Your task to perform on an android device: Add "razer kraken" to the cart on newegg, then select checkout. Image 0: 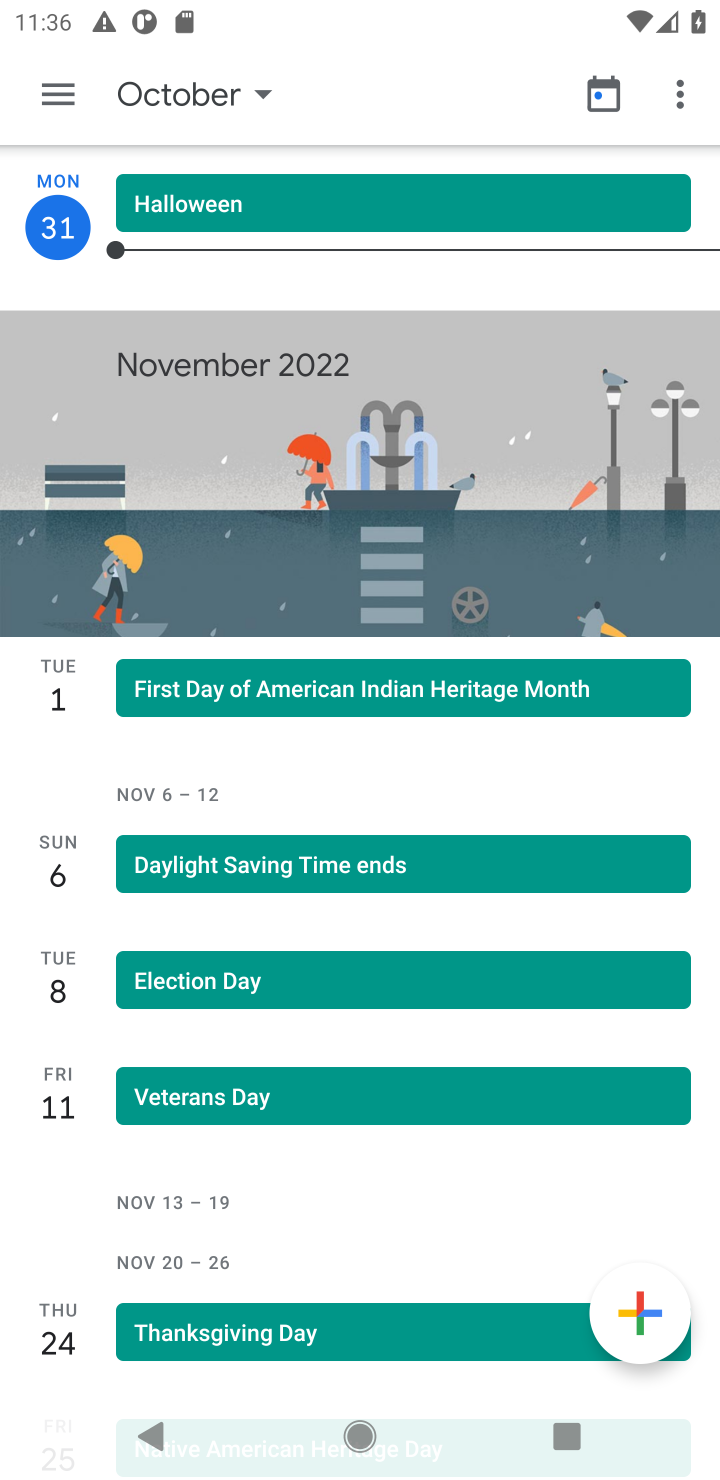
Step 0: press home button
Your task to perform on an android device: Add "razer kraken" to the cart on newegg, then select checkout. Image 1: 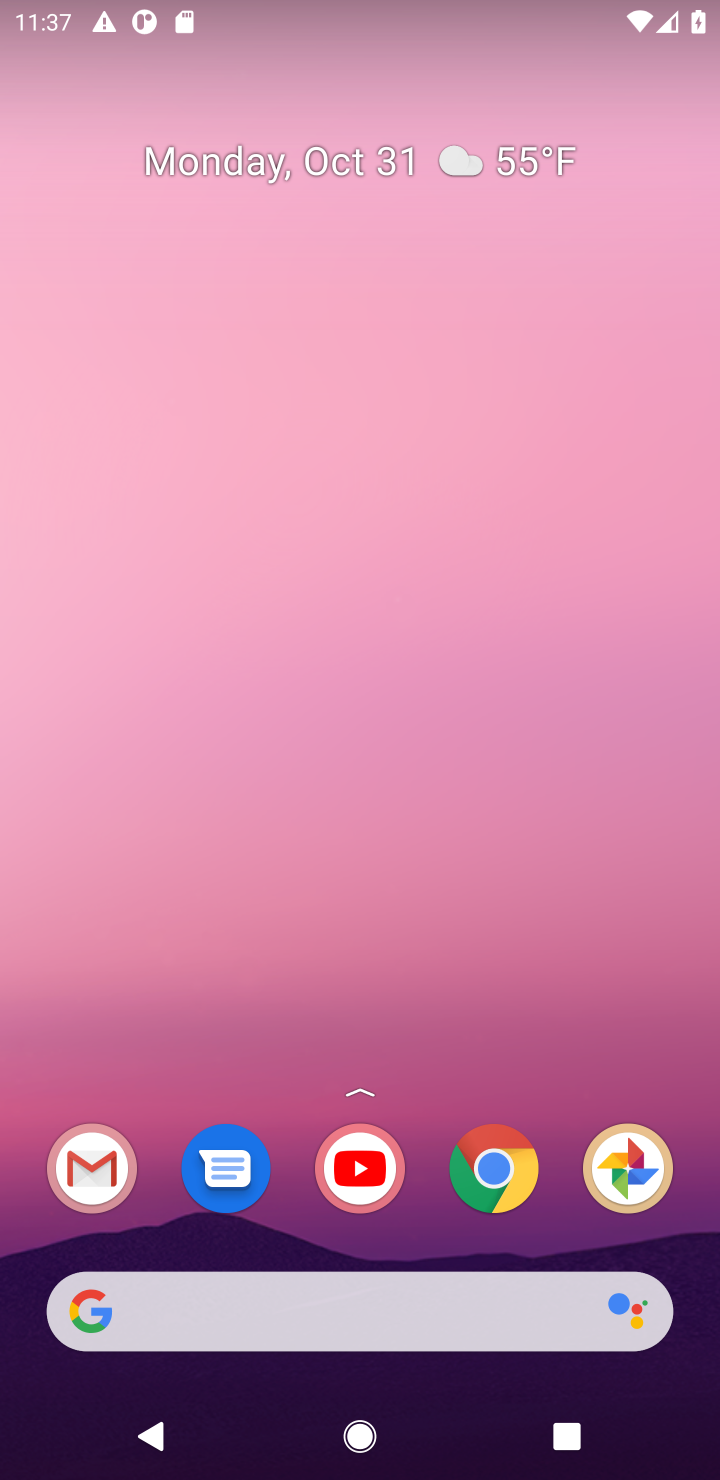
Step 1: click (464, 1172)
Your task to perform on an android device: Add "razer kraken" to the cart on newegg, then select checkout. Image 2: 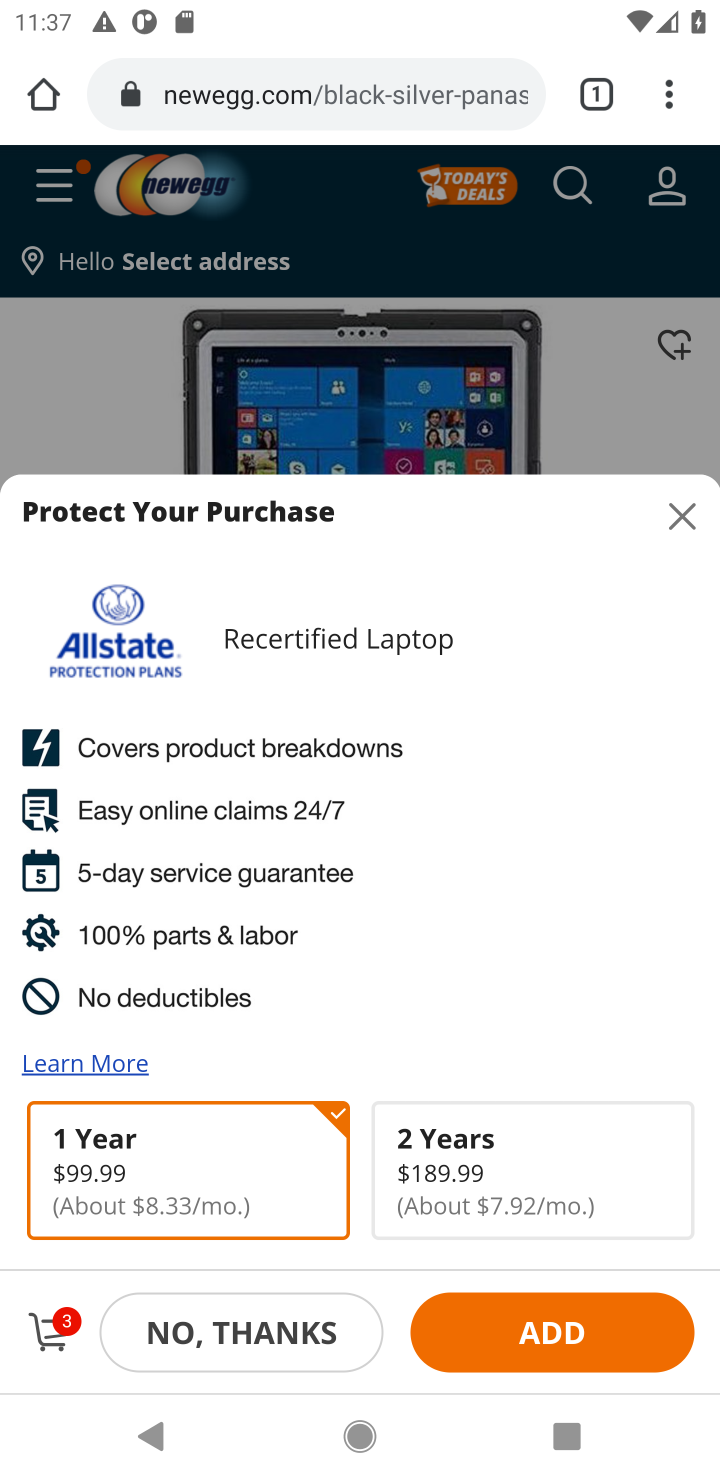
Step 2: click (313, 96)
Your task to perform on an android device: Add "razer kraken" to the cart on newegg, then select checkout. Image 3: 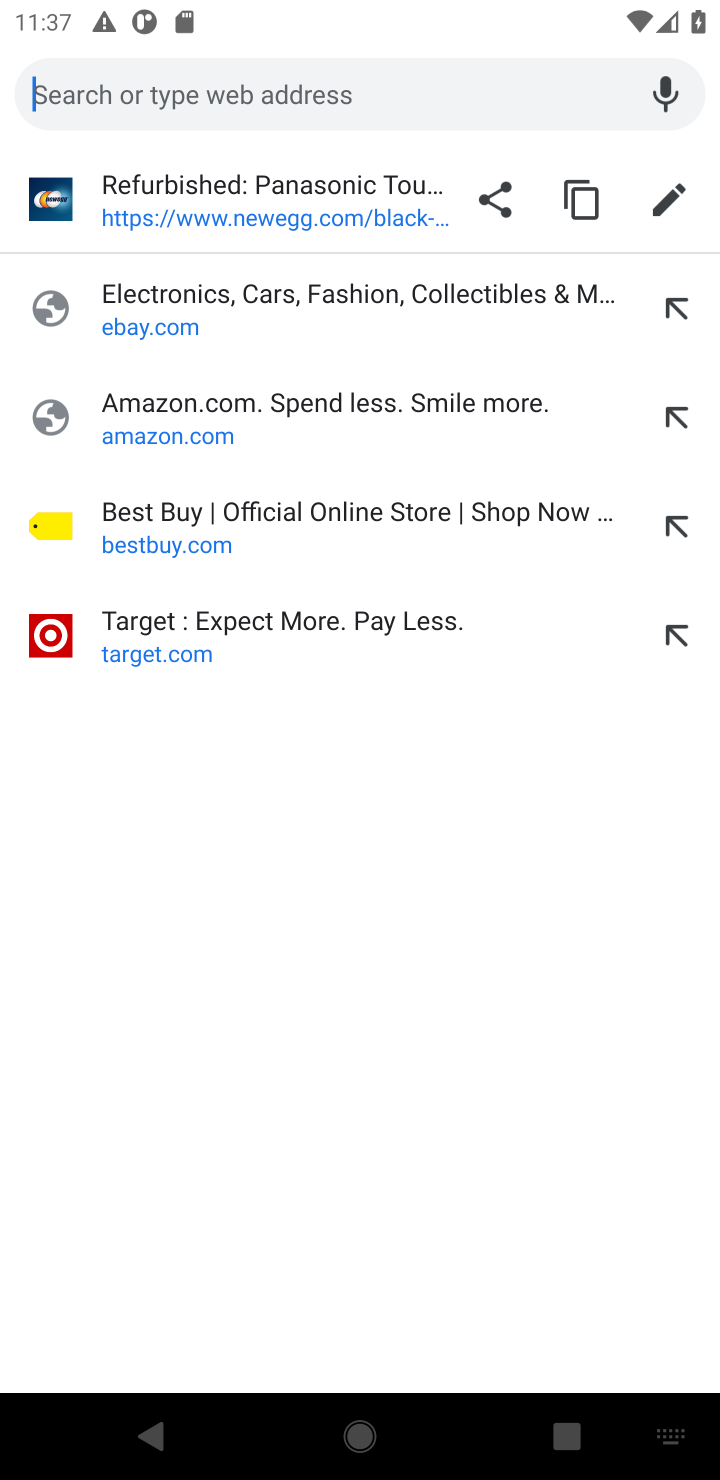
Step 3: type "newegg"
Your task to perform on an android device: Add "razer kraken" to the cart on newegg, then select checkout. Image 4: 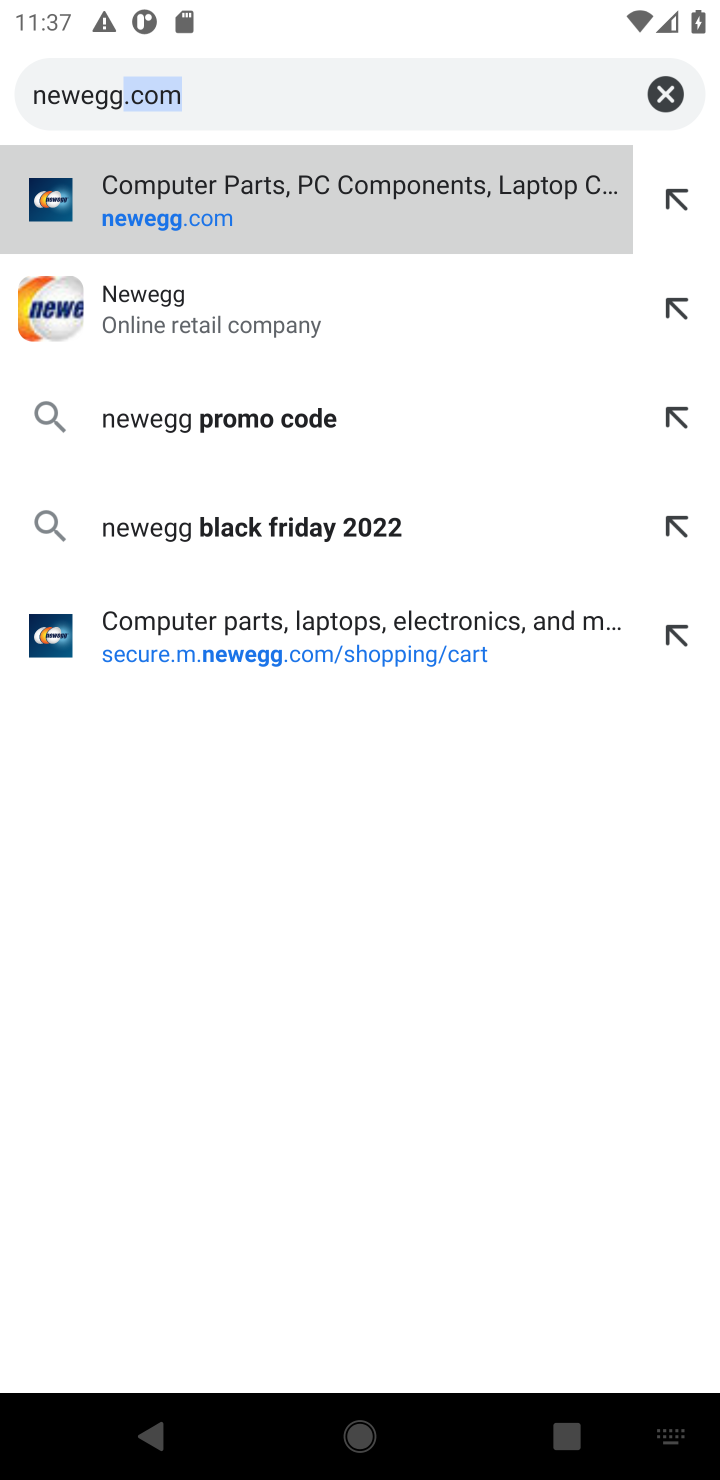
Step 4: press enter
Your task to perform on an android device: Add "razer kraken" to the cart on newegg, then select checkout. Image 5: 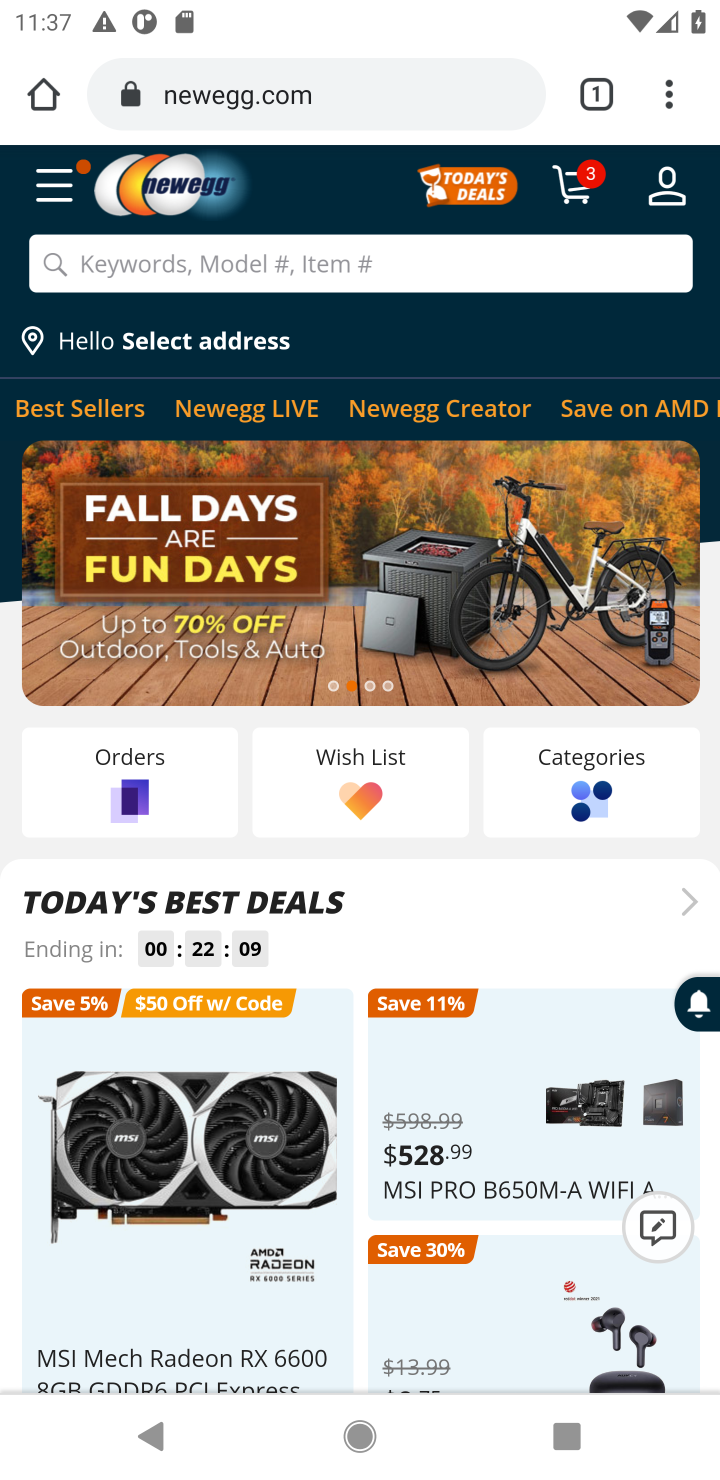
Step 5: click (429, 263)
Your task to perform on an android device: Add "razer kraken" to the cart on newegg, then select checkout. Image 6: 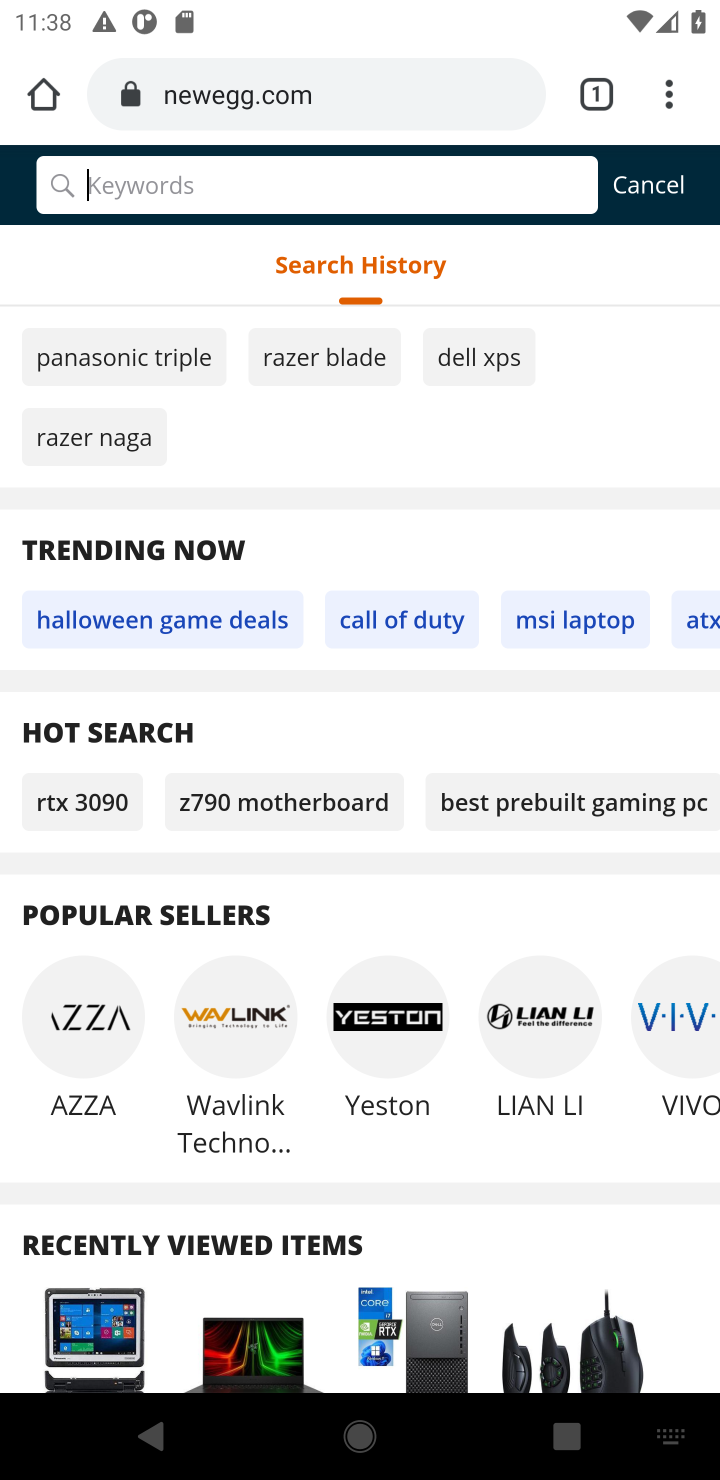
Step 6: type "razer kraken"
Your task to perform on an android device: Add "razer kraken" to the cart on newegg, then select checkout. Image 7: 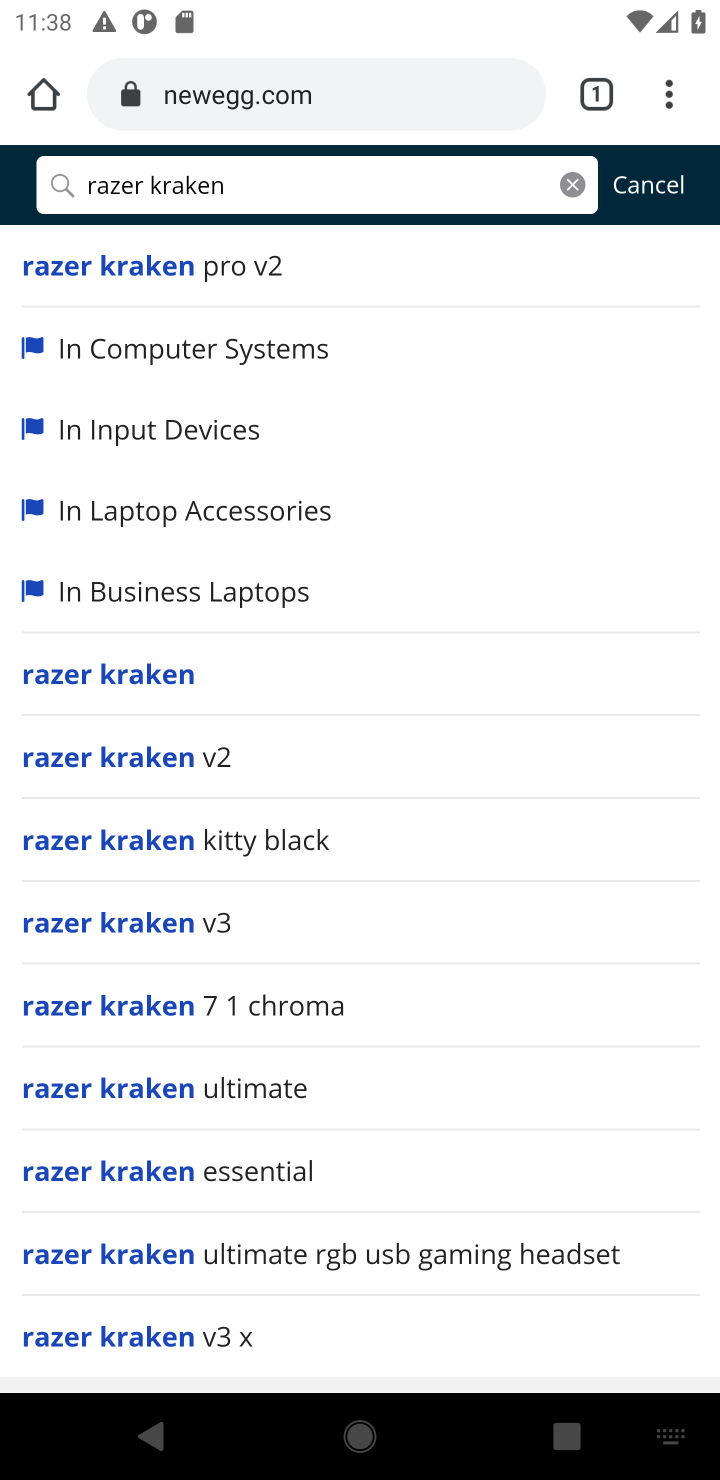
Step 7: press enter
Your task to perform on an android device: Add "razer kraken" to the cart on newegg, then select checkout. Image 8: 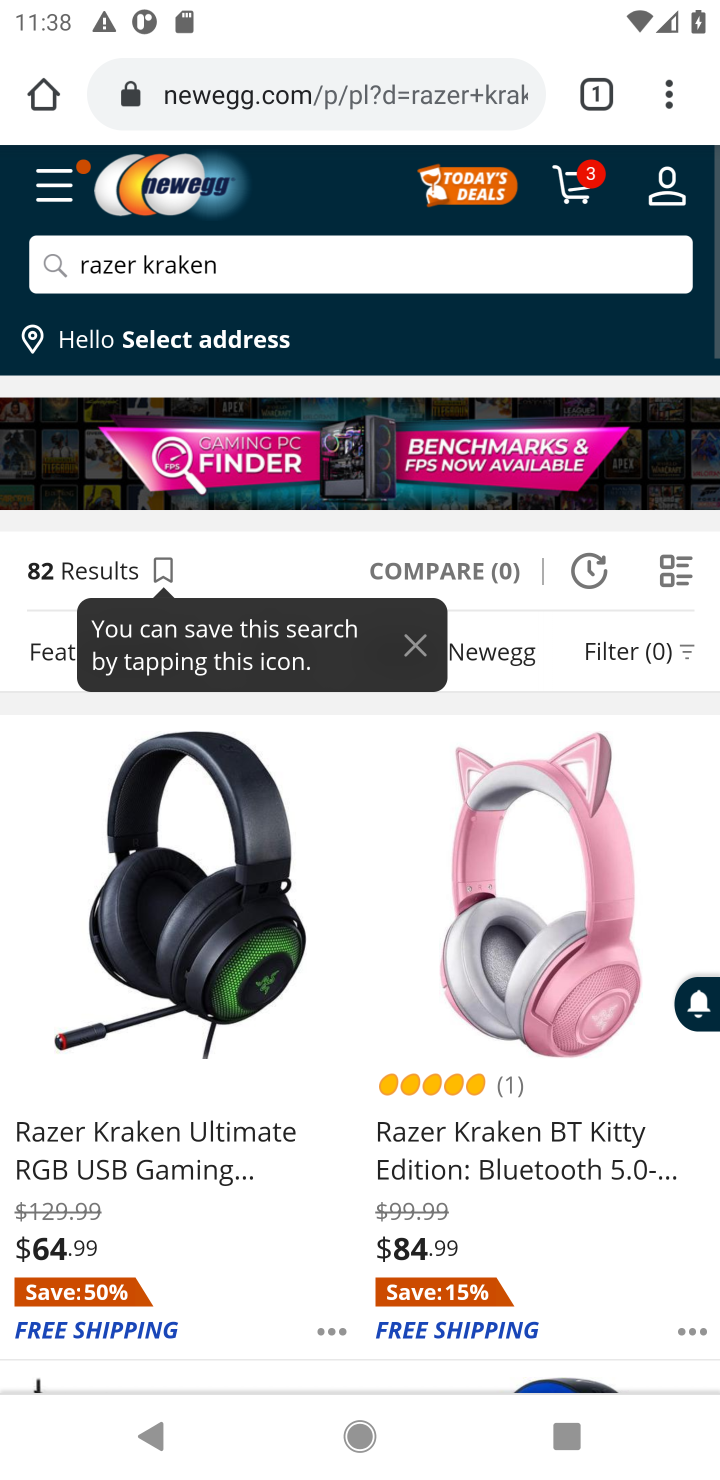
Step 8: click (217, 1013)
Your task to perform on an android device: Add "razer kraken" to the cart on newegg, then select checkout. Image 9: 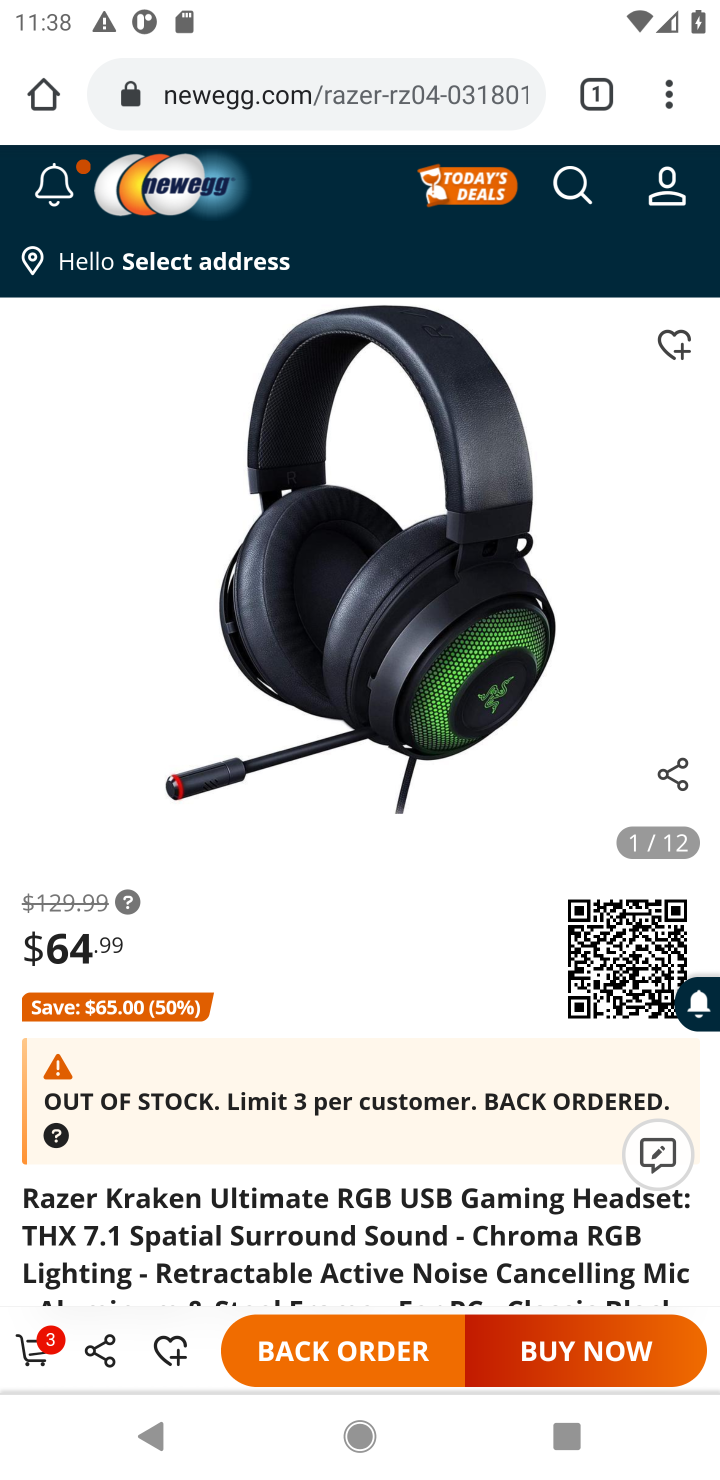
Step 9: drag from (356, 1026) to (408, 423)
Your task to perform on an android device: Add "razer kraken" to the cart on newegg, then select checkout. Image 10: 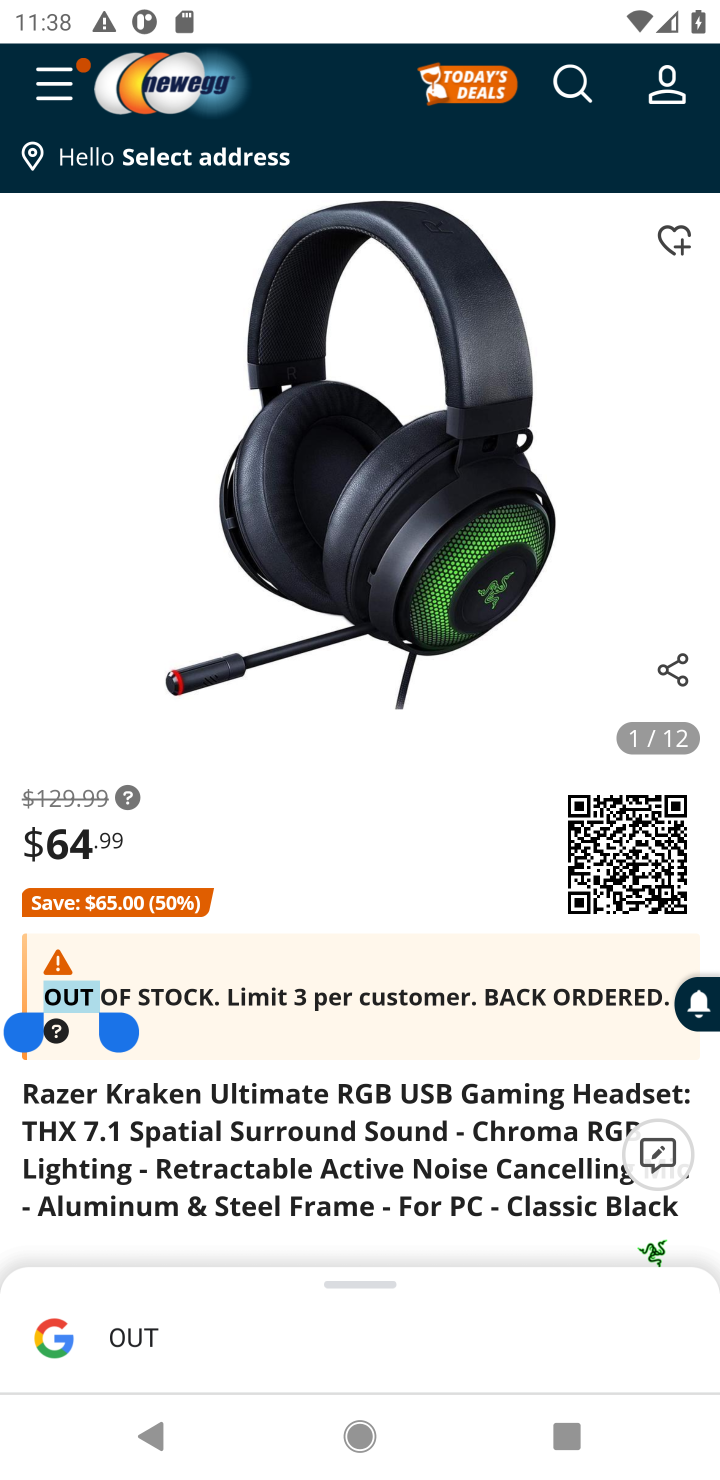
Step 10: drag from (403, 1165) to (433, 776)
Your task to perform on an android device: Add "razer kraken" to the cart on newegg, then select checkout. Image 11: 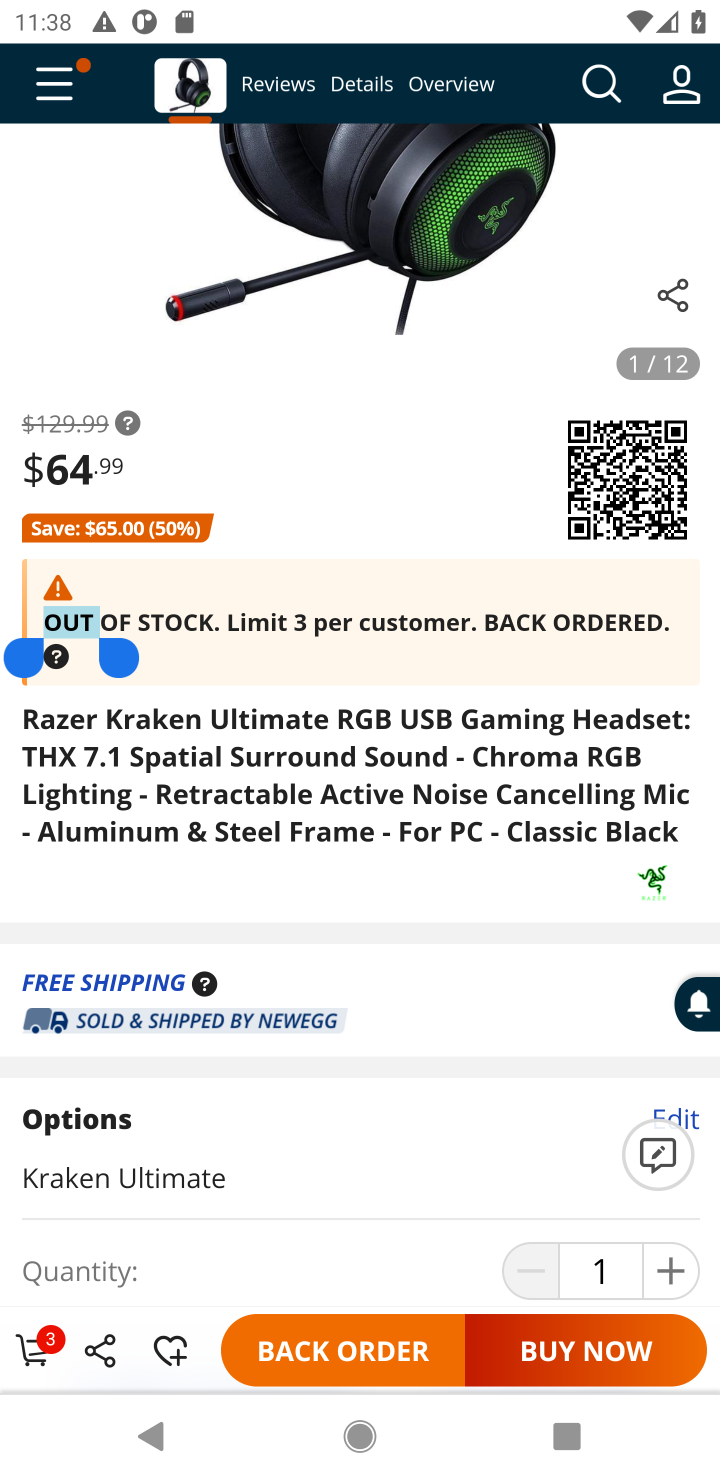
Step 11: drag from (497, 945) to (452, 410)
Your task to perform on an android device: Add "razer kraken" to the cart on newegg, then select checkout. Image 12: 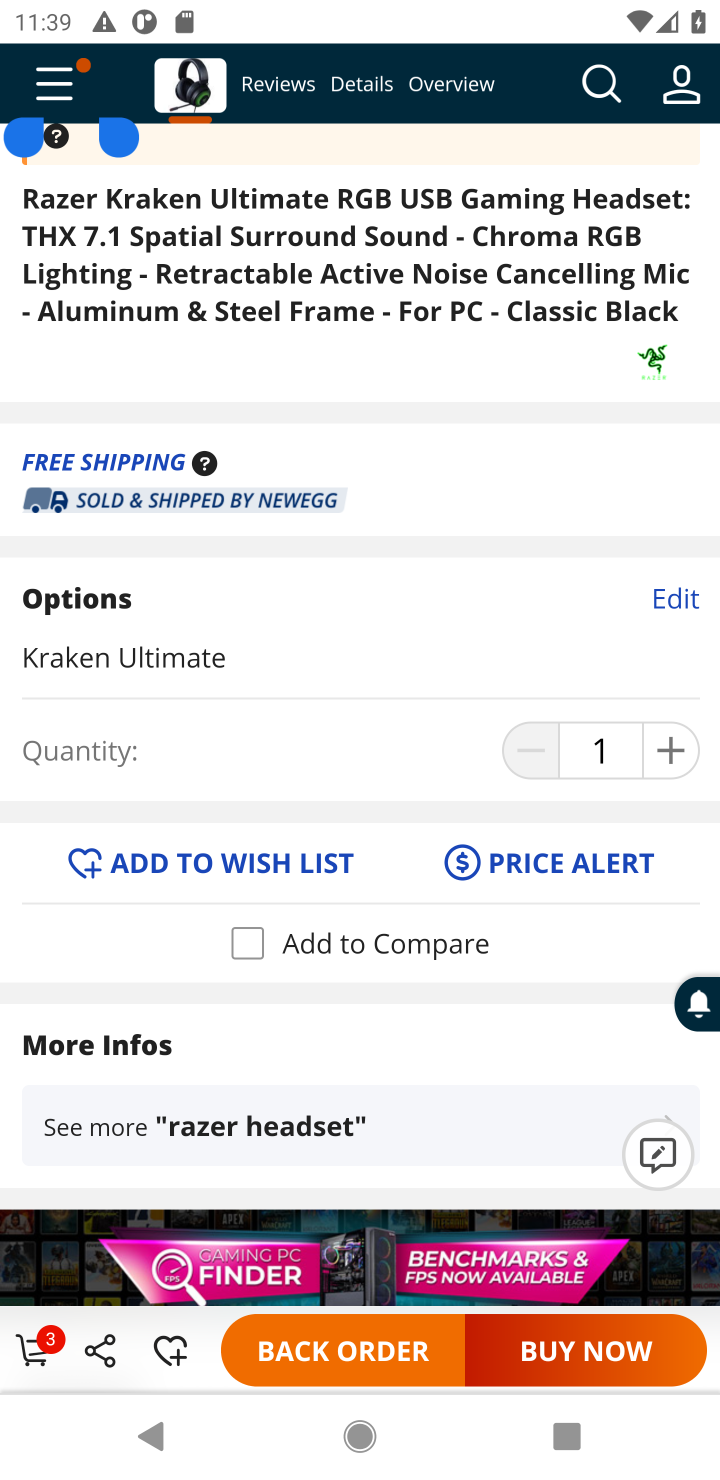
Step 12: drag from (407, 765) to (461, 1348)
Your task to perform on an android device: Add "razer kraken" to the cart on newegg, then select checkout. Image 13: 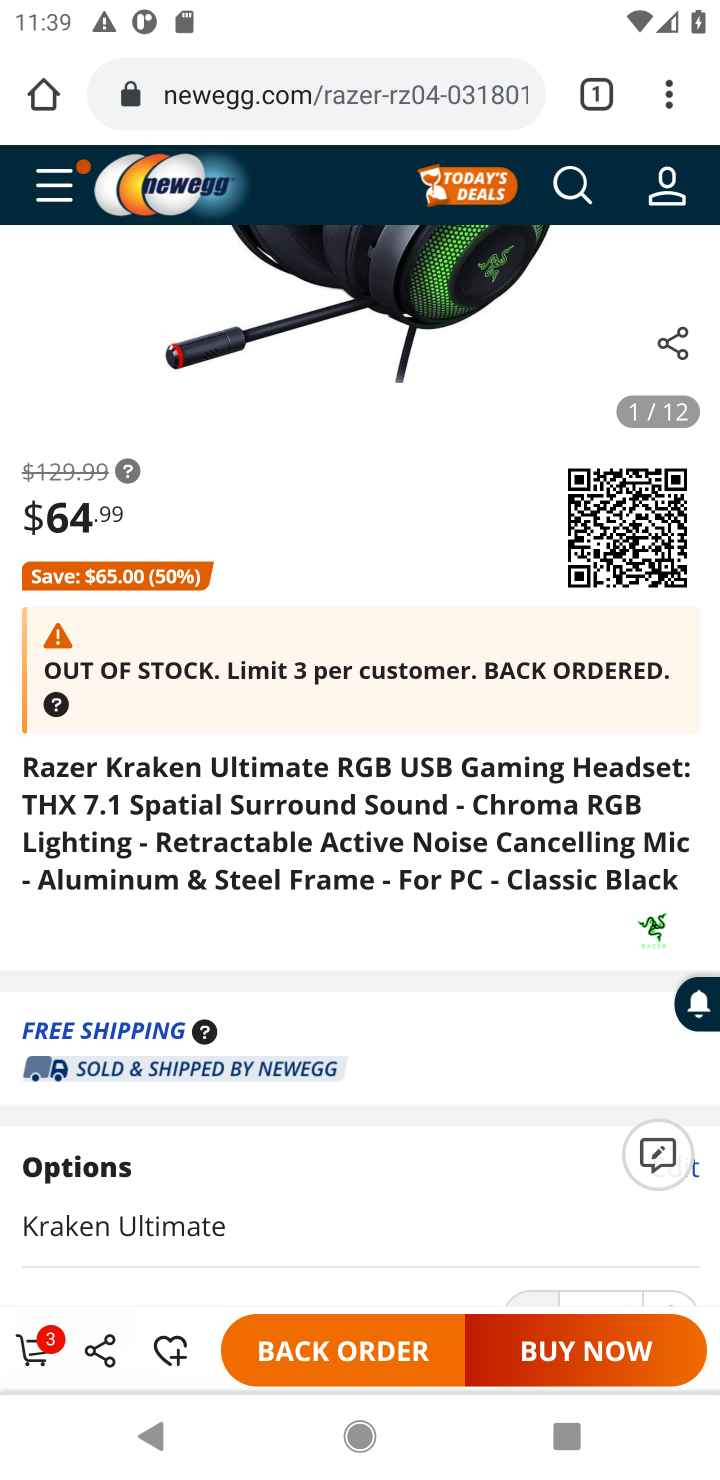
Step 13: press back button
Your task to perform on an android device: Add "razer kraken" to the cart on newegg, then select checkout. Image 14: 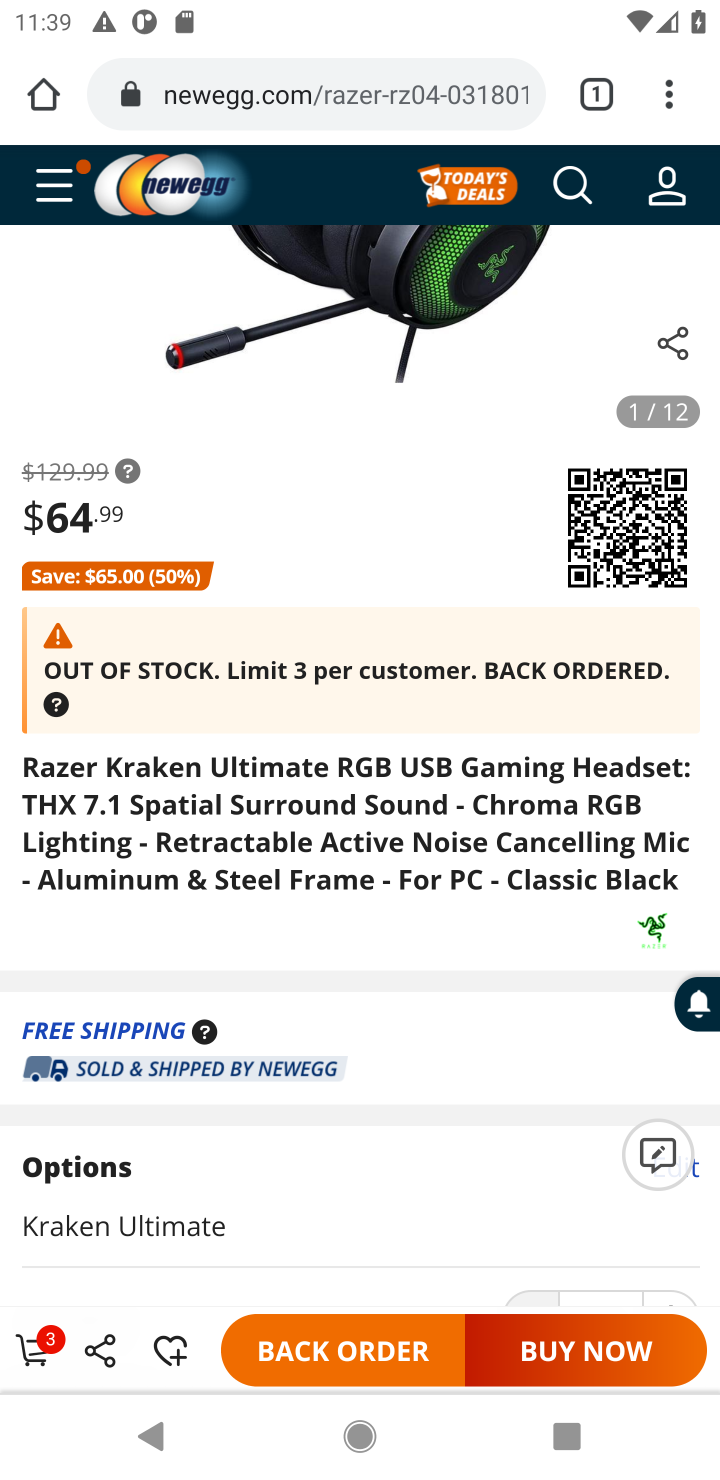
Step 14: press back button
Your task to perform on an android device: Add "razer kraken" to the cart on newegg, then select checkout. Image 15: 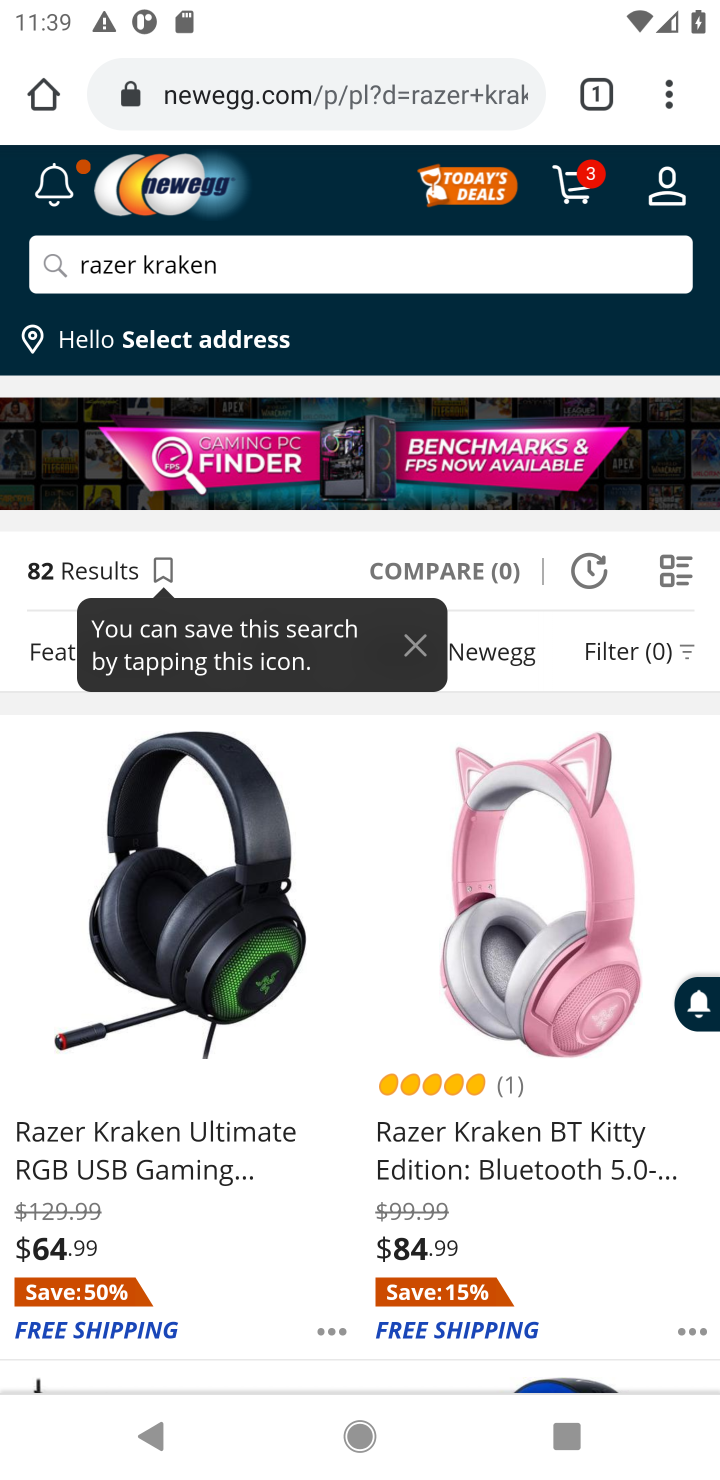
Step 15: drag from (355, 979) to (387, 478)
Your task to perform on an android device: Add "razer kraken" to the cart on newegg, then select checkout. Image 16: 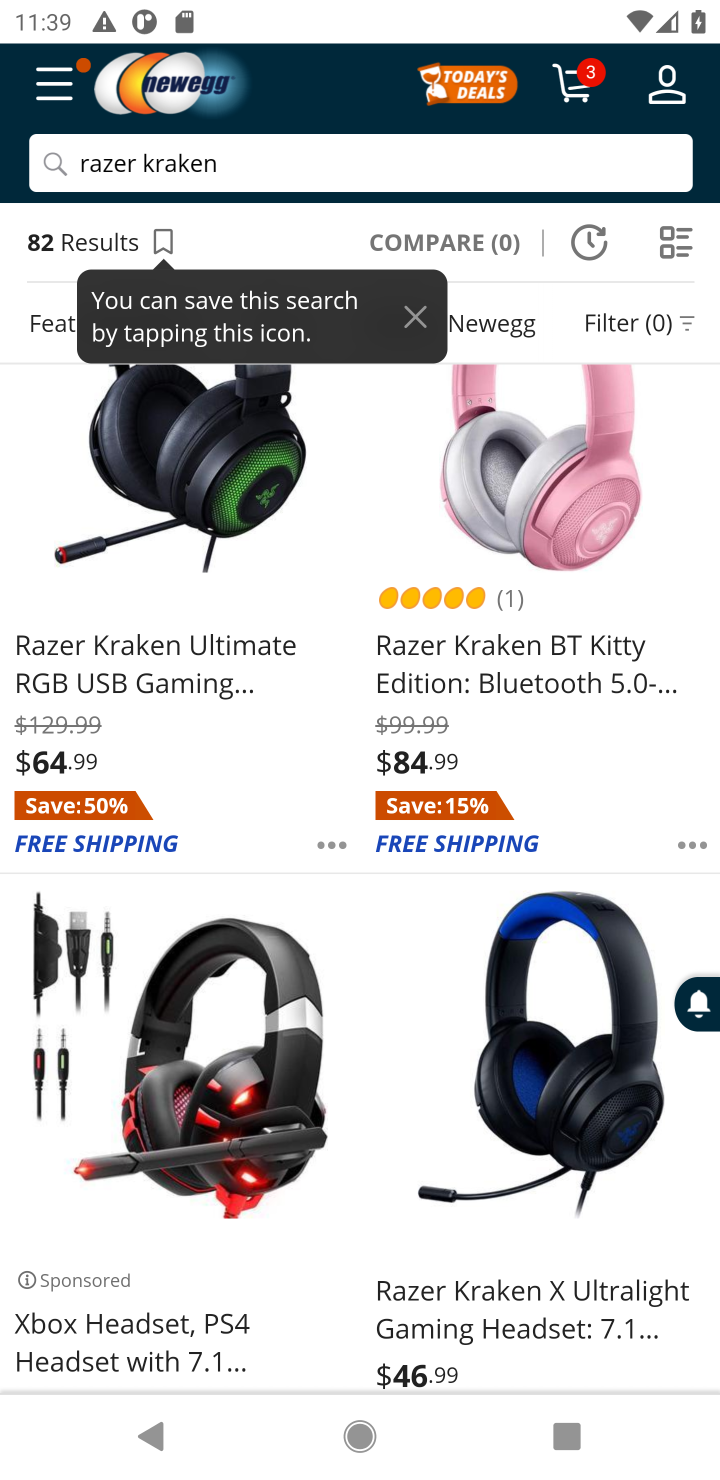
Step 16: drag from (353, 1046) to (365, 850)
Your task to perform on an android device: Add "razer kraken" to the cart on newegg, then select checkout. Image 17: 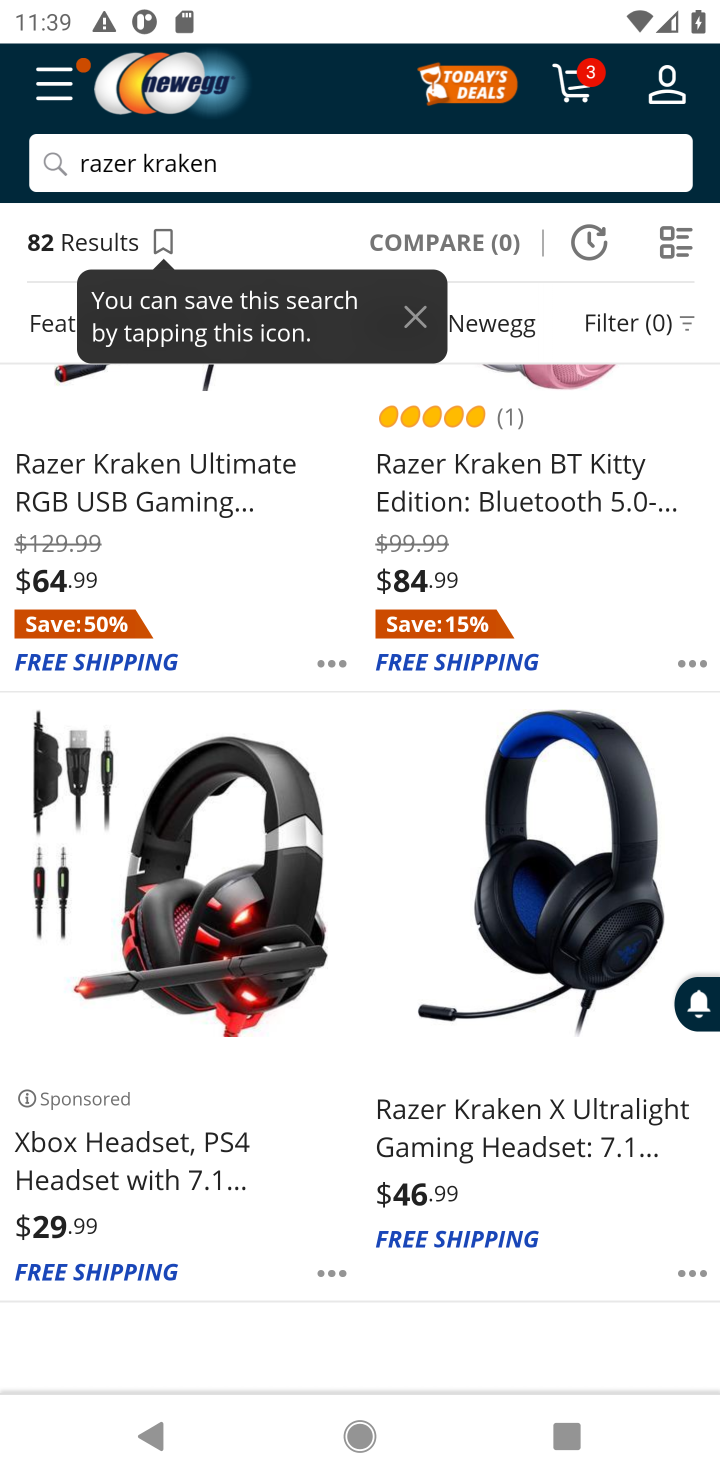
Step 17: click (477, 998)
Your task to perform on an android device: Add "razer kraken" to the cart on newegg, then select checkout. Image 18: 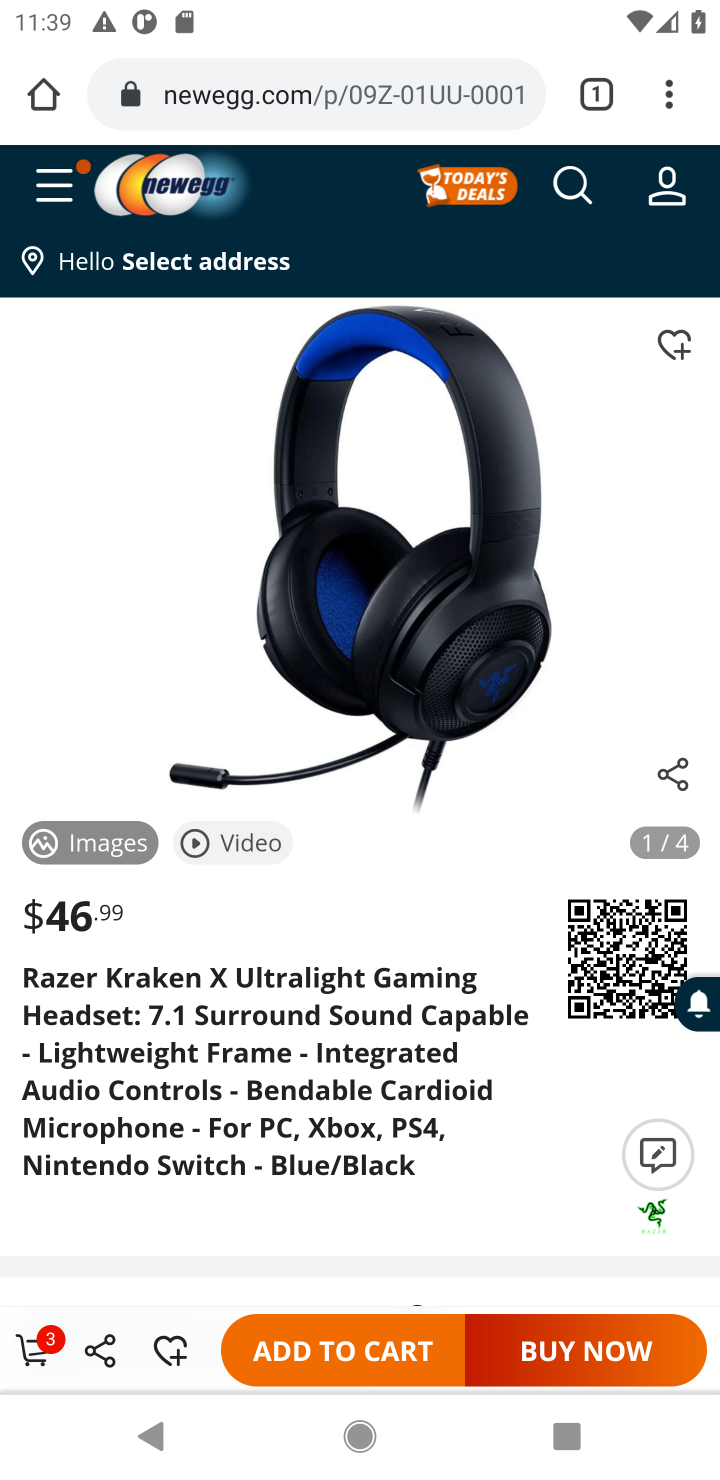
Step 18: click (319, 1344)
Your task to perform on an android device: Add "razer kraken" to the cart on newegg, then select checkout. Image 19: 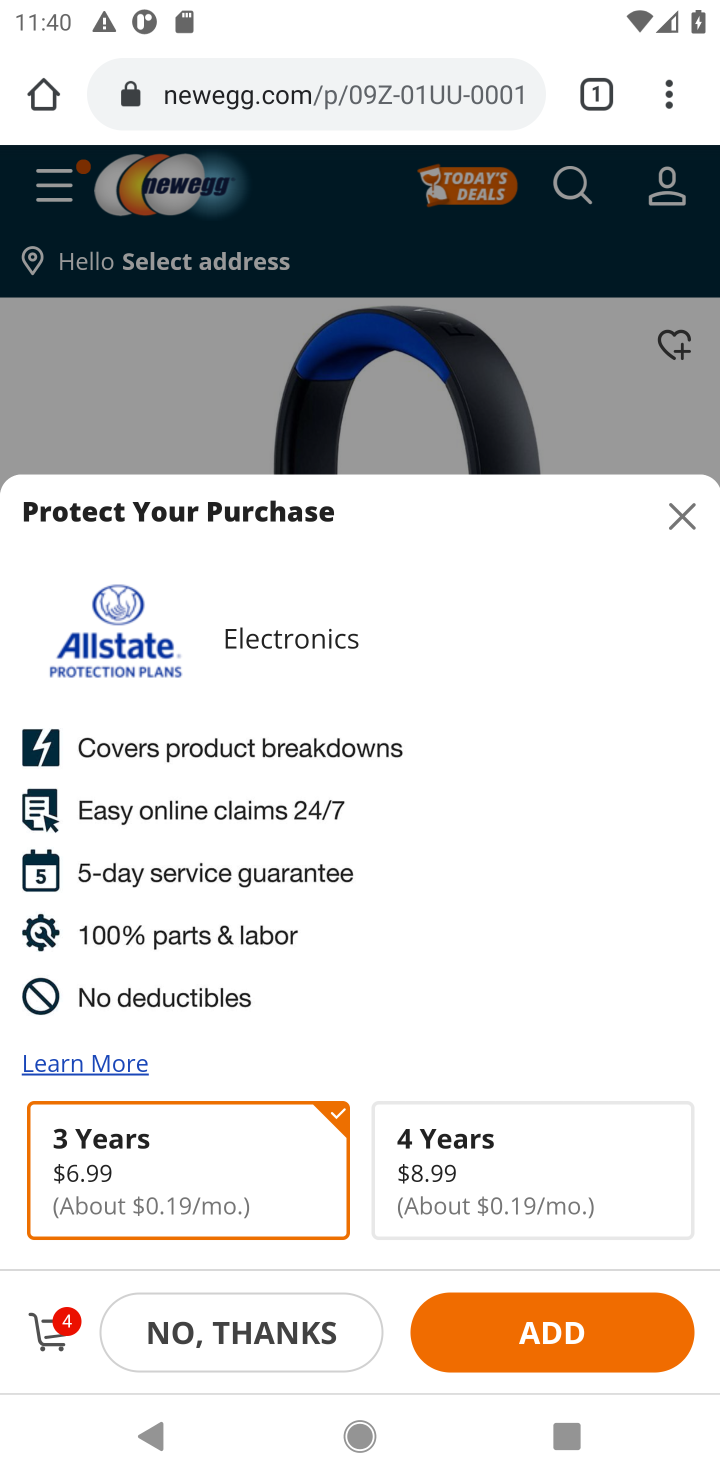
Step 19: click (52, 1328)
Your task to perform on an android device: Add "razer kraken" to the cart on newegg, then select checkout. Image 20: 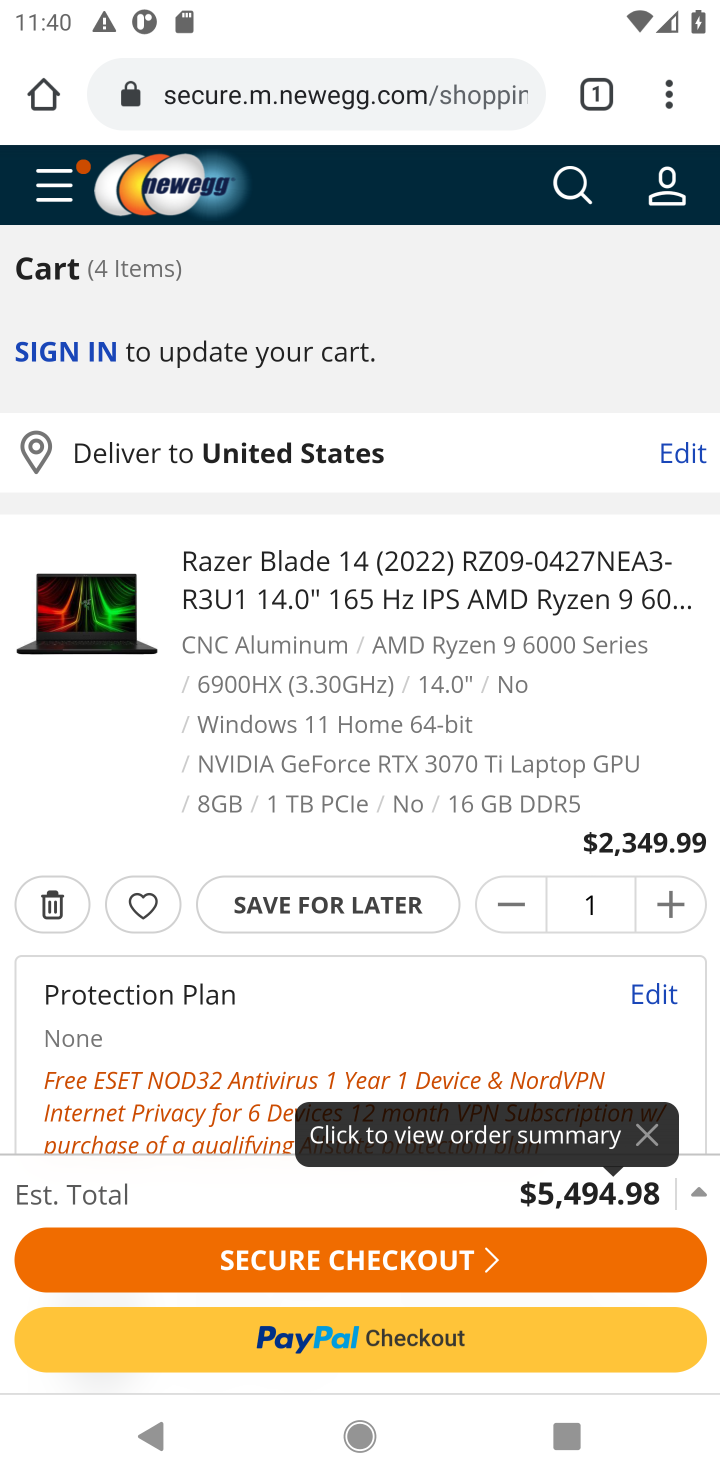
Step 20: click (266, 1262)
Your task to perform on an android device: Add "razer kraken" to the cart on newegg, then select checkout. Image 21: 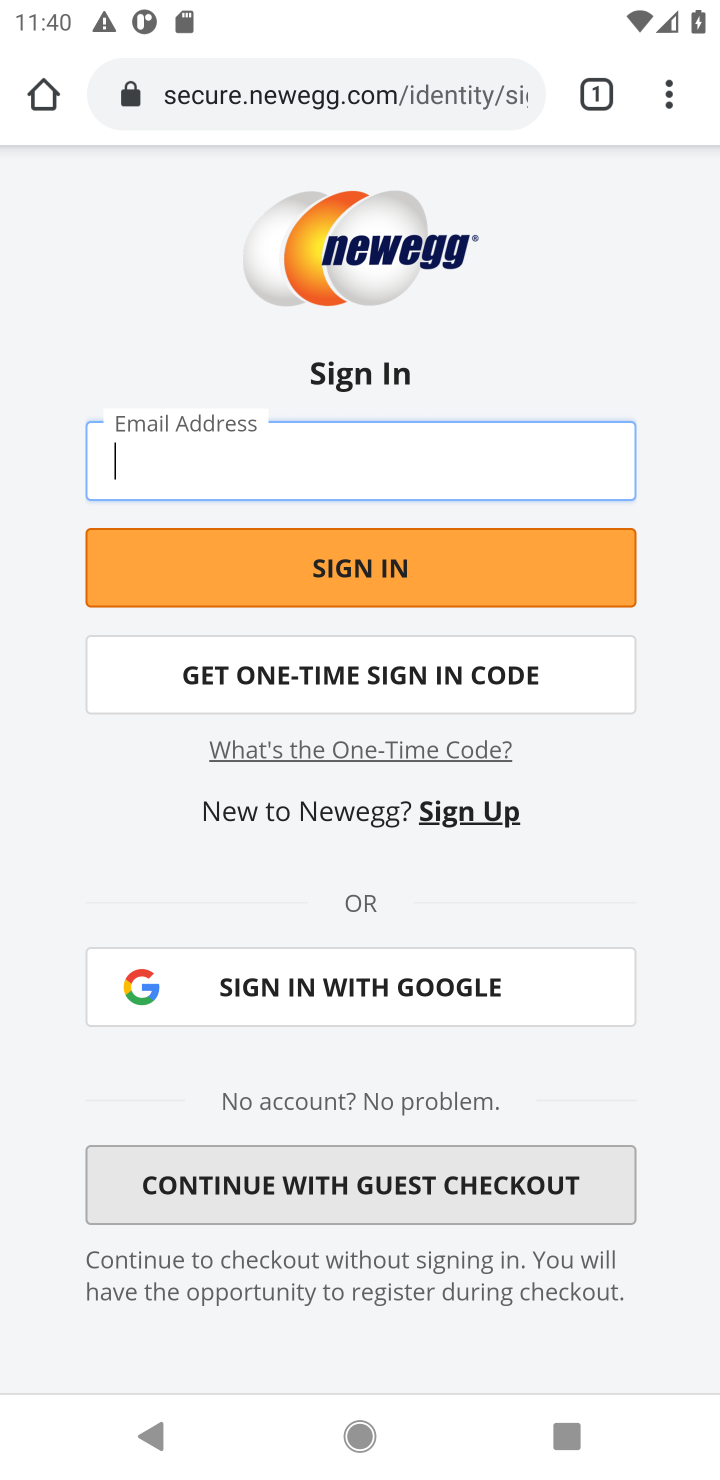
Step 21: task complete